Your task to perform on an android device: change your default location settings in chrome Image 0: 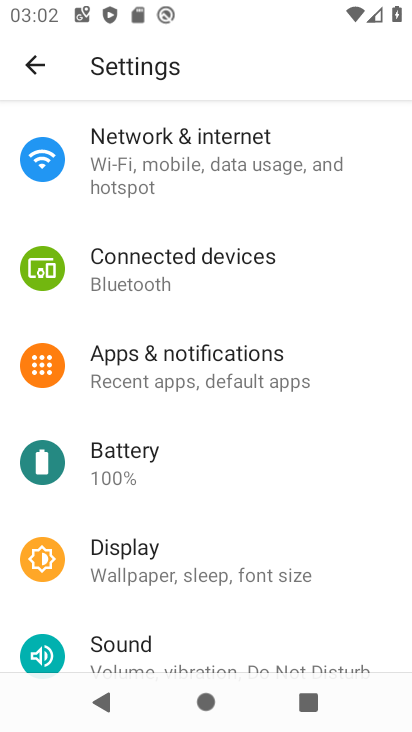
Step 0: press home button
Your task to perform on an android device: change your default location settings in chrome Image 1: 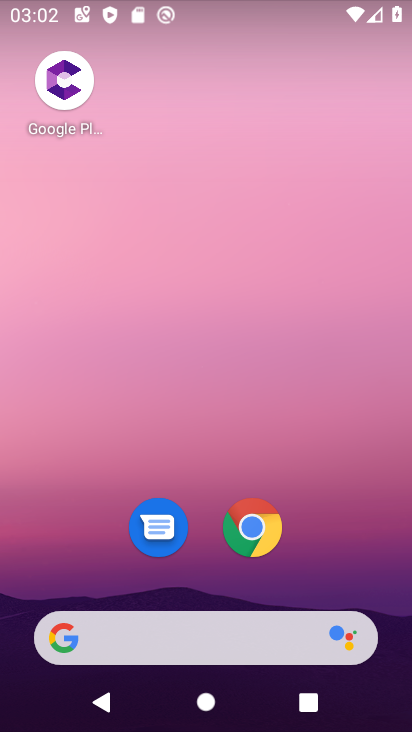
Step 1: click (253, 536)
Your task to perform on an android device: change your default location settings in chrome Image 2: 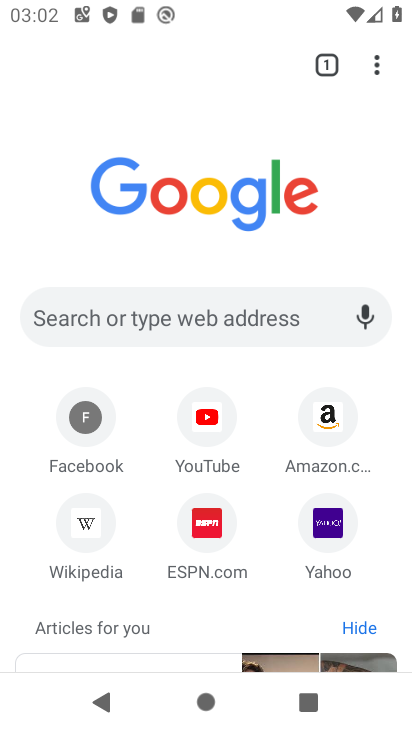
Step 2: drag from (374, 67) to (183, 535)
Your task to perform on an android device: change your default location settings in chrome Image 3: 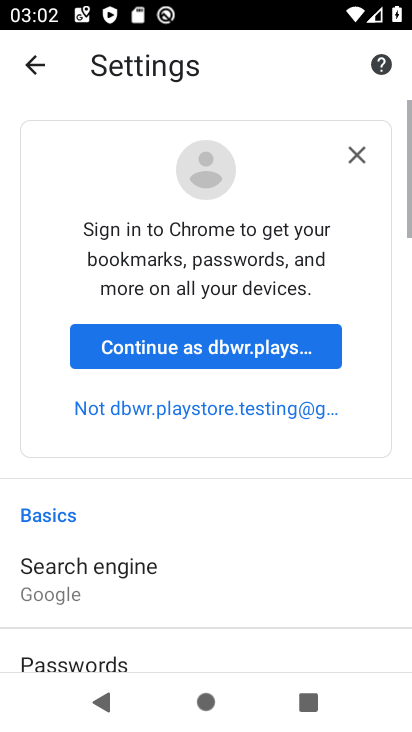
Step 3: drag from (196, 586) to (187, 259)
Your task to perform on an android device: change your default location settings in chrome Image 4: 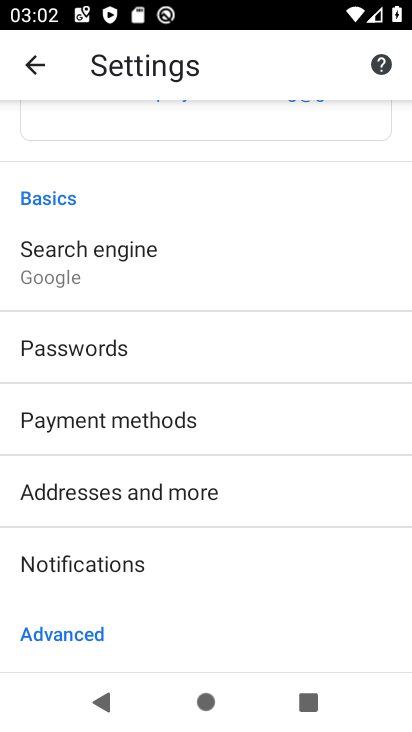
Step 4: drag from (203, 571) to (178, 242)
Your task to perform on an android device: change your default location settings in chrome Image 5: 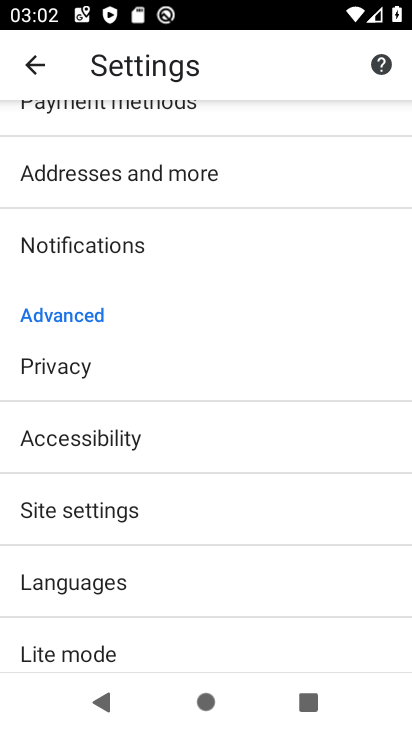
Step 5: click (117, 513)
Your task to perform on an android device: change your default location settings in chrome Image 6: 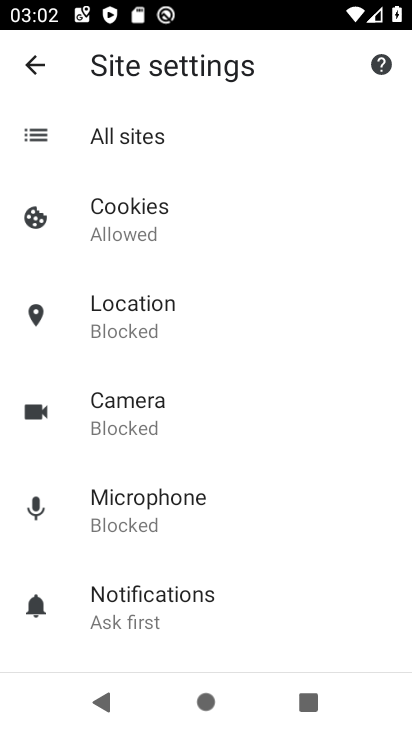
Step 6: click (113, 316)
Your task to perform on an android device: change your default location settings in chrome Image 7: 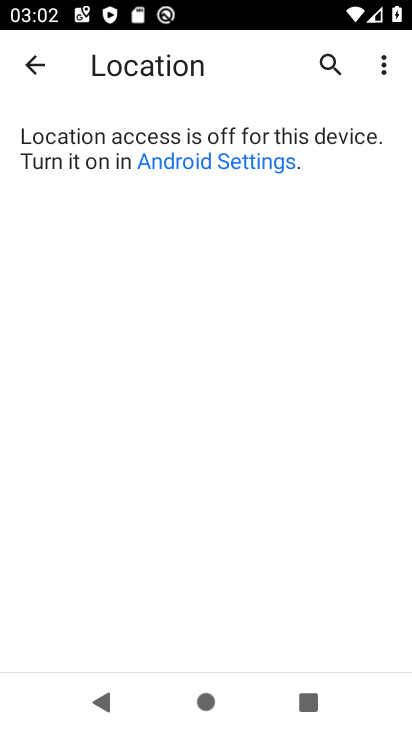
Step 7: click (244, 170)
Your task to perform on an android device: change your default location settings in chrome Image 8: 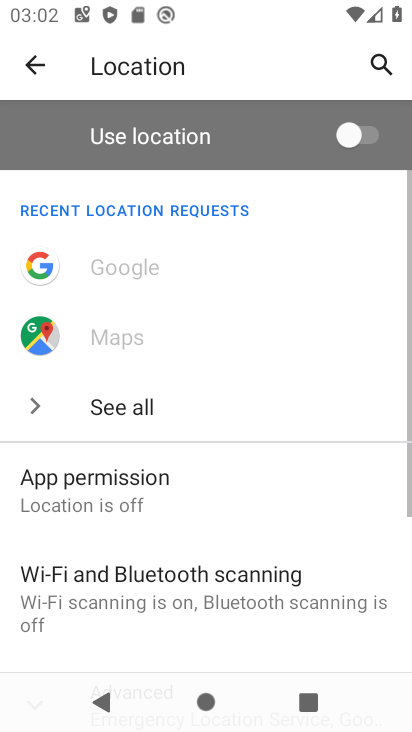
Step 8: click (333, 136)
Your task to perform on an android device: change your default location settings in chrome Image 9: 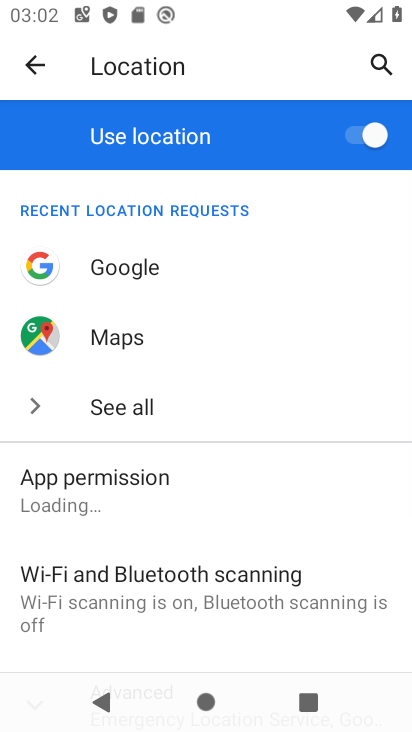
Step 9: task complete